Your task to perform on an android device: toggle pop-ups in chrome Image 0: 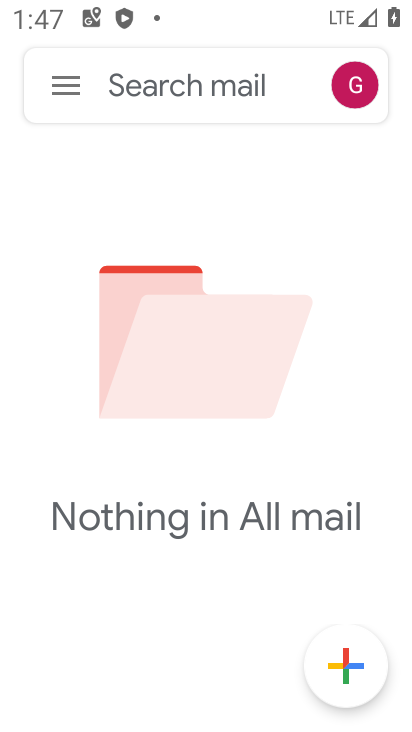
Step 0: press home button
Your task to perform on an android device: toggle pop-ups in chrome Image 1: 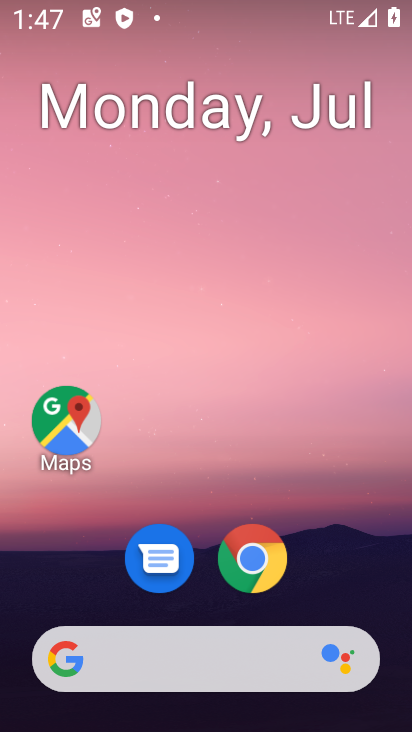
Step 1: drag from (347, 551) to (349, 77)
Your task to perform on an android device: toggle pop-ups in chrome Image 2: 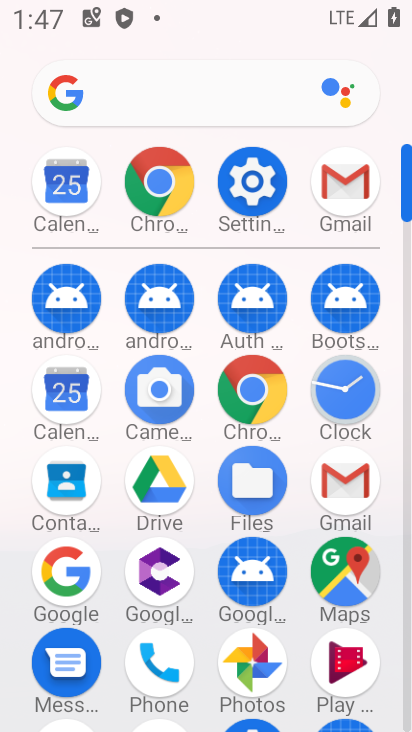
Step 2: click (259, 387)
Your task to perform on an android device: toggle pop-ups in chrome Image 3: 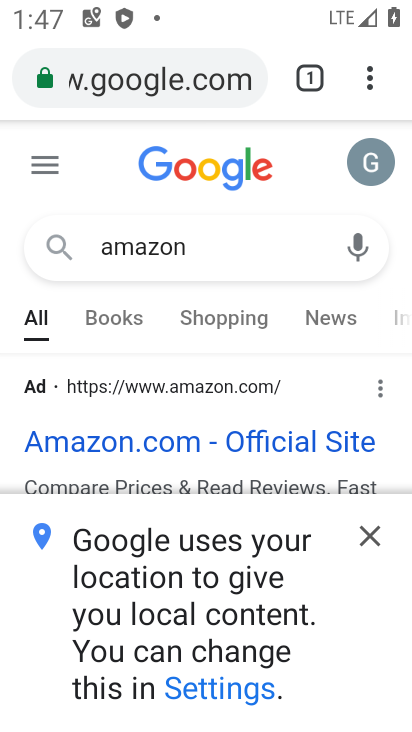
Step 3: click (373, 85)
Your task to perform on an android device: toggle pop-ups in chrome Image 4: 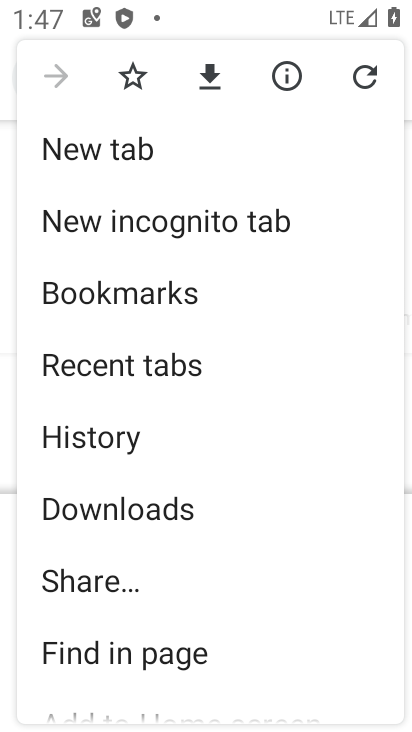
Step 4: drag from (306, 373) to (307, 276)
Your task to perform on an android device: toggle pop-ups in chrome Image 5: 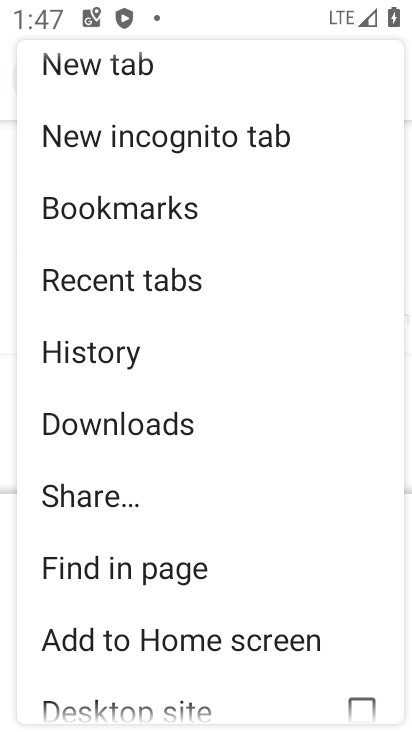
Step 5: drag from (276, 463) to (280, 313)
Your task to perform on an android device: toggle pop-ups in chrome Image 6: 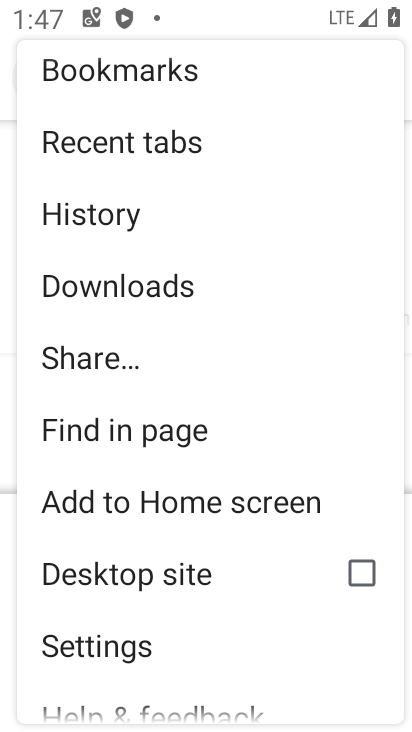
Step 6: drag from (235, 559) to (247, 384)
Your task to perform on an android device: toggle pop-ups in chrome Image 7: 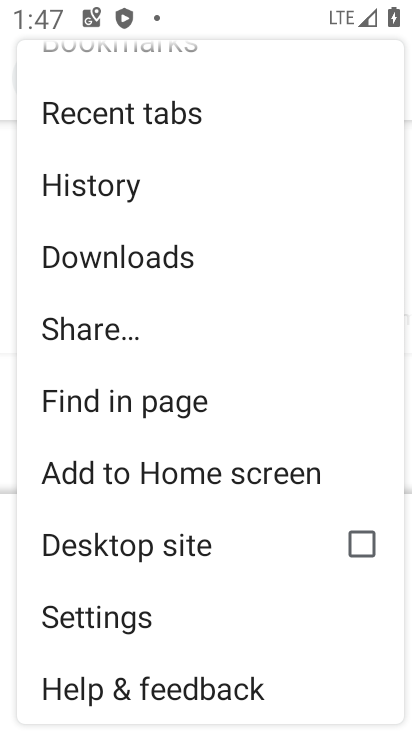
Step 7: click (208, 619)
Your task to perform on an android device: toggle pop-ups in chrome Image 8: 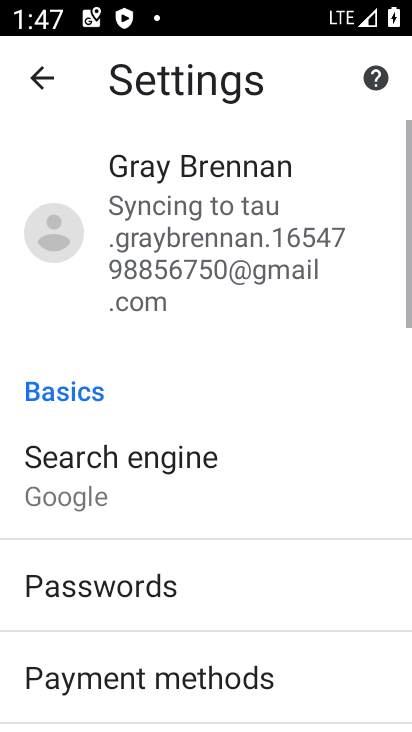
Step 8: drag from (330, 591) to (340, 462)
Your task to perform on an android device: toggle pop-ups in chrome Image 9: 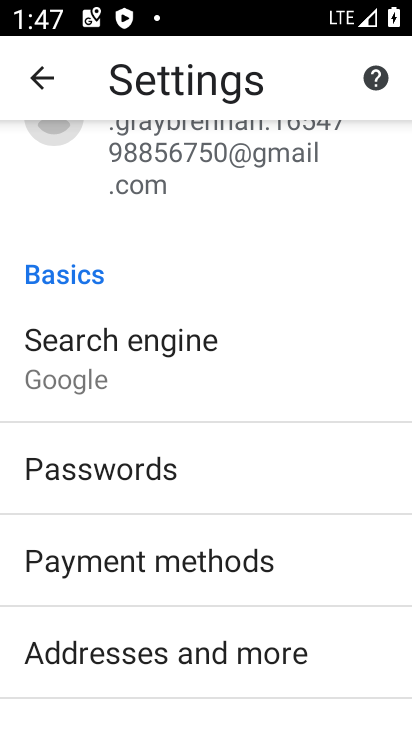
Step 9: drag from (329, 602) to (328, 478)
Your task to perform on an android device: toggle pop-ups in chrome Image 10: 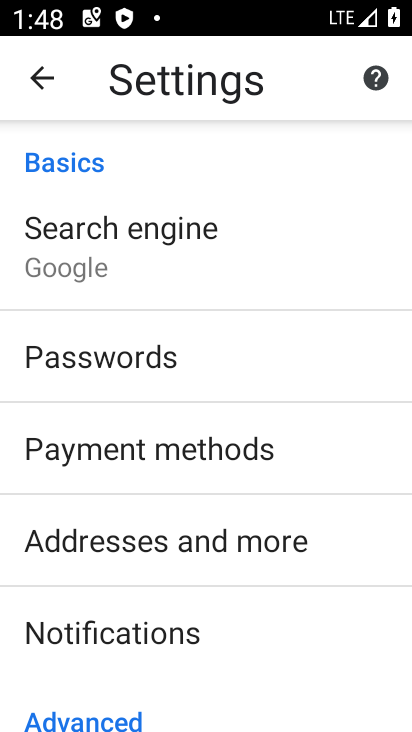
Step 10: drag from (328, 632) to (329, 506)
Your task to perform on an android device: toggle pop-ups in chrome Image 11: 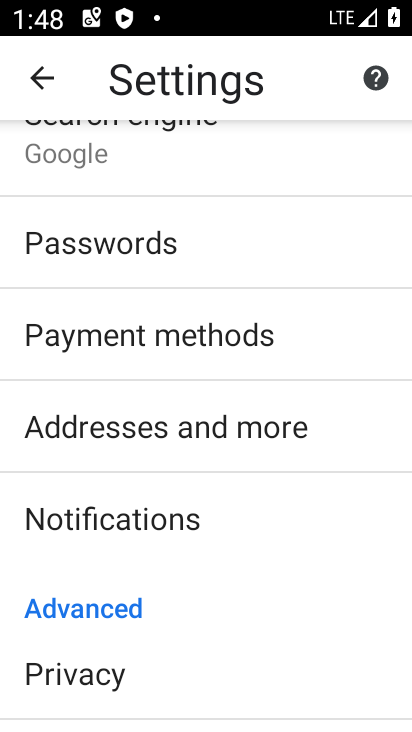
Step 11: drag from (317, 606) to (310, 492)
Your task to perform on an android device: toggle pop-ups in chrome Image 12: 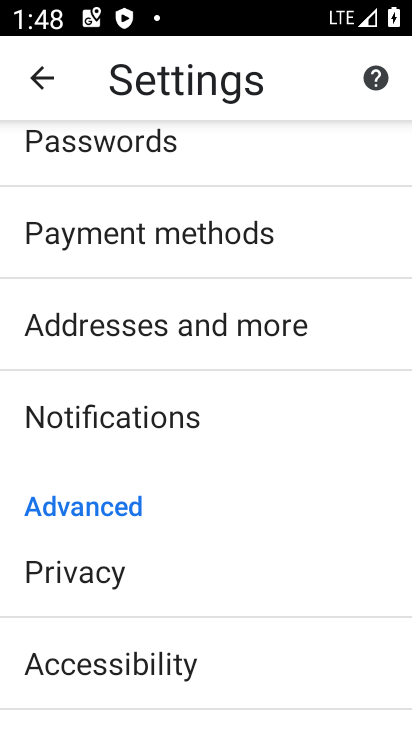
Step 12: drag from (313, 637) to (314, 495)
Your task to perform on an android device: toggle pop-ups in chrome Image 13: 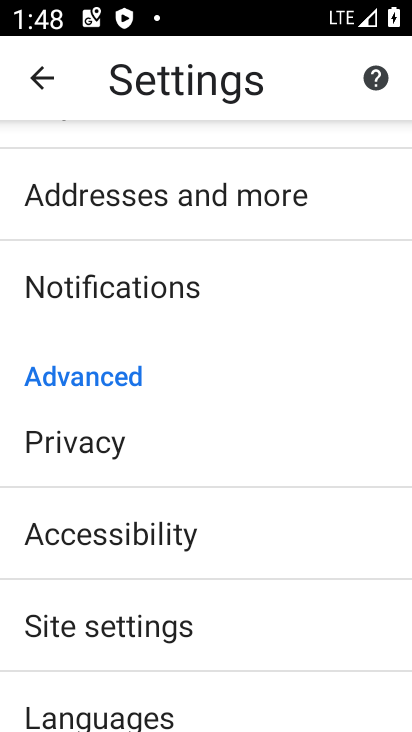
Step 13: drag from (323, 641) to (323, 480)
Your task to perform on an android device: toggle pop-ups in chrome Image 14: 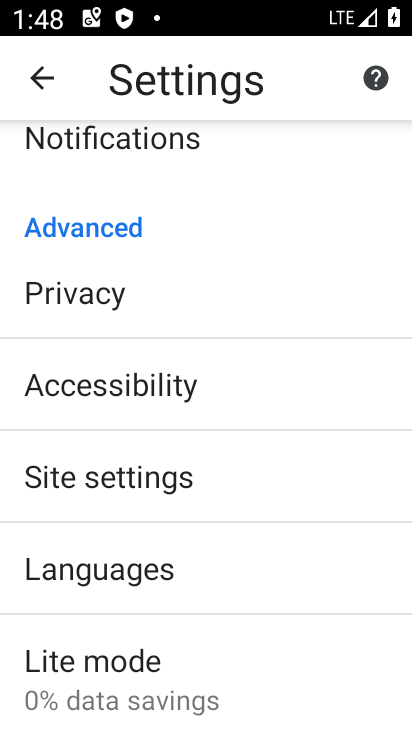
Step 14: click (323, 479)
Your task to perform on an android device: toggle pop-ups in chrome Image 15: 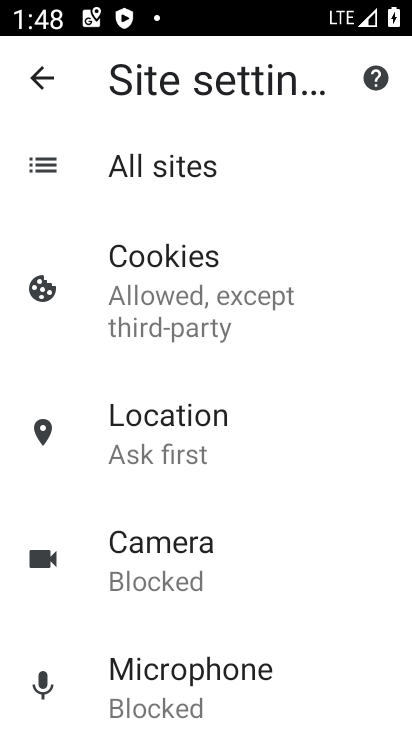
Step 15: drag from (305, 559) to (304, 460)
Your task to perform on an android device: toggle pop-ups in chrome Image 16: 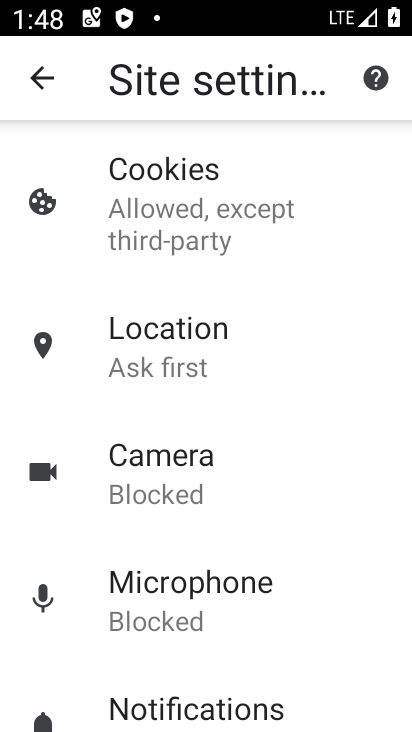
Step 16: drag from (325, 556) to (332, 391)
Your task to perform on an android device: toggle pop-ups in chrome Image 17: 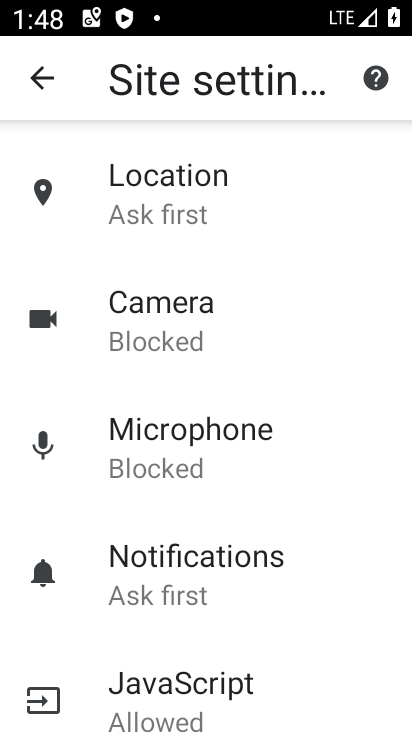
Step 17: drag from (327, 555) to (328, 415)
Your task to perform on an android device: toggle pop-ups in chrome Image 18: 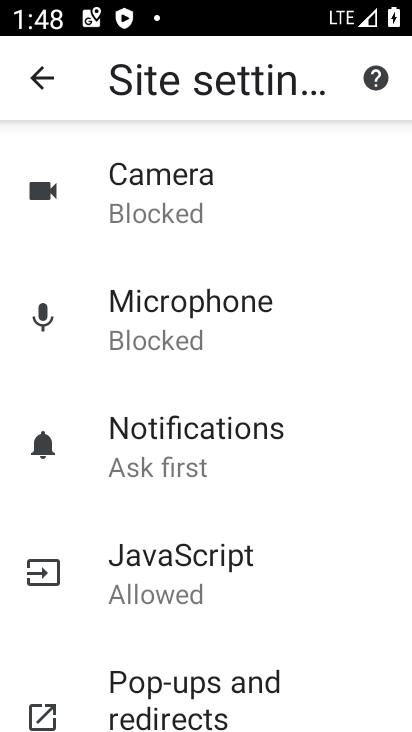
Step 18: drag from (320, 590) to (319, 458)
Your task to perform on an android device: toggle pop-ups in chrome Image 19: 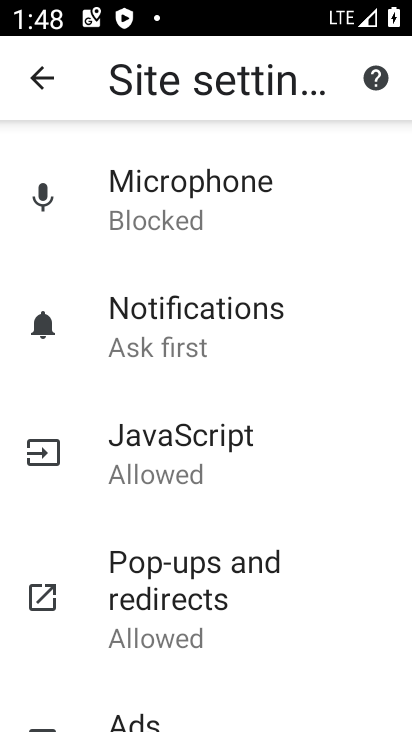
Step 19: drag from (315, 627) to (313, 452)
Your task to perform on an android device: toggle pop-ups in chrome Image 20: 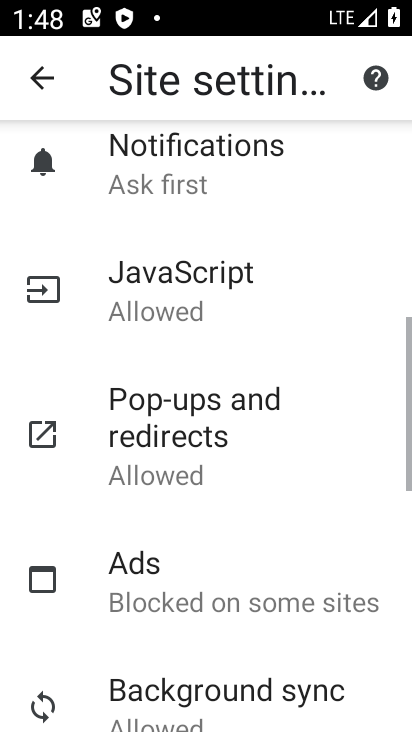
Step 20: click (313, 452)
Your task to perform on an android device: toggle pop-ups in chrome Image 21: 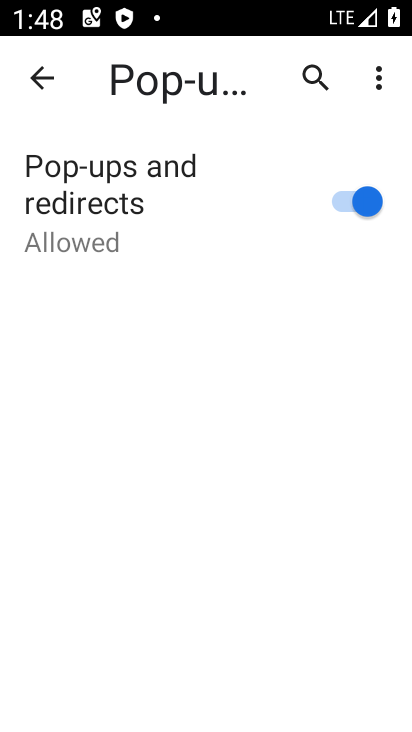
Step 21: click (369, 200)
Your task to perform on an android device: toggle pop-ups in chrome Image 22: 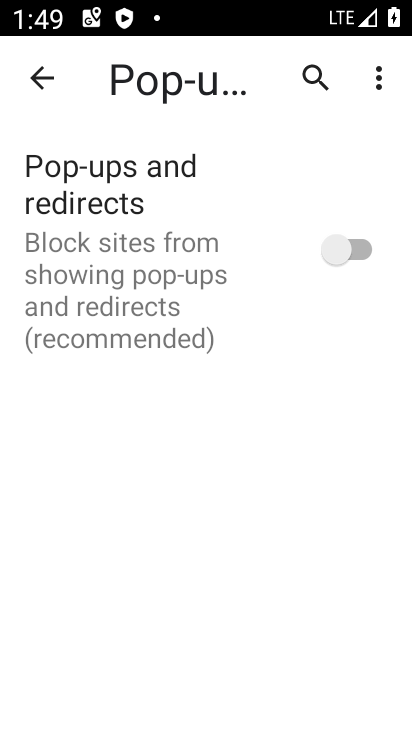
Step 22: task complete